Your task to perform on an android device: toggle priority inbox in the gmail app Image 0: 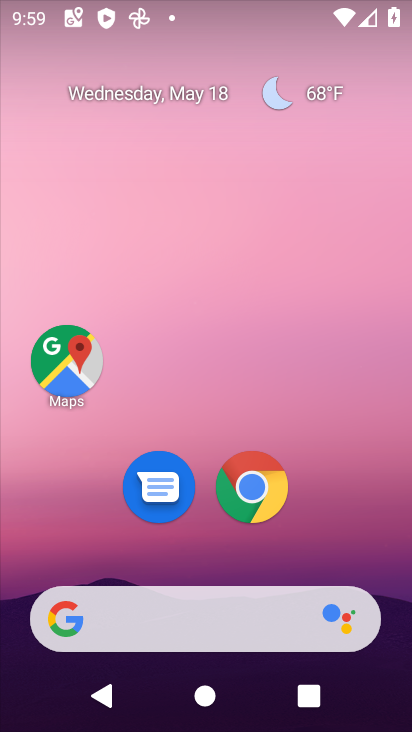
Step 0: drag from (331, 531) to (306, 193)
Your task to perform on an android device: toggle priority inbox in the gmail app Image 1: 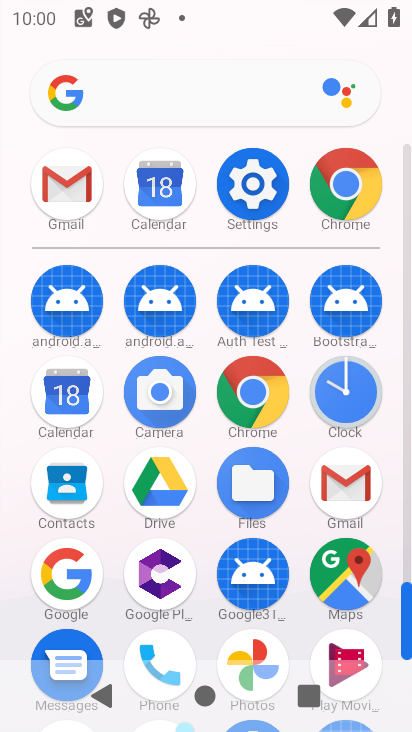
Step 1: click (333, 480)
Your task to perform on an android device: toggle priority inbox in the gmail app Image 2: 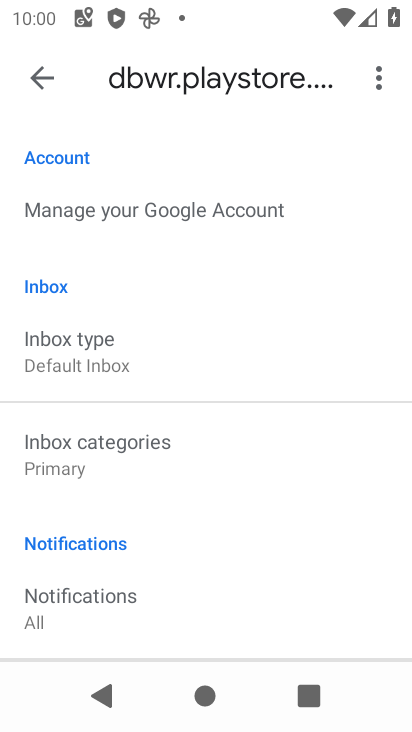
Step 2: click (123, 355)
Your task to perform on an android device: toggle priority inbox in the gmail app Image 3: 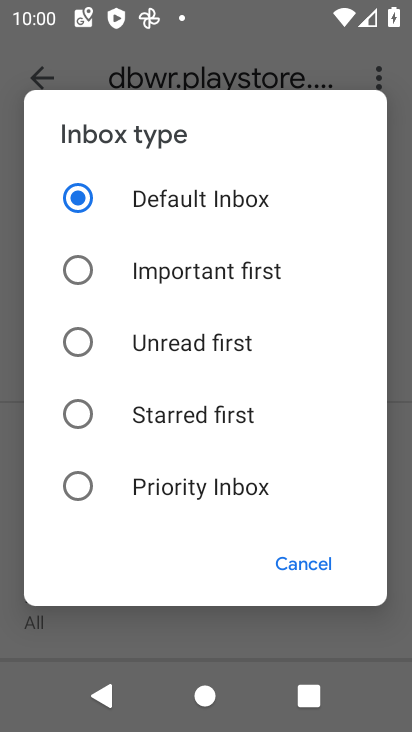
Step 3: click (82, 482)
Your task to perform on an android device: toggle priority inbox in the gmail app Image 4: 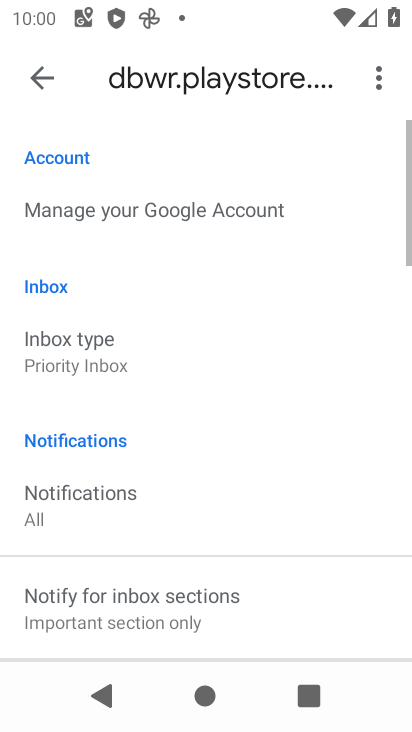
Step 4: task complete